Your task to perform on an android device: turn off picture-in-picture Image 0: 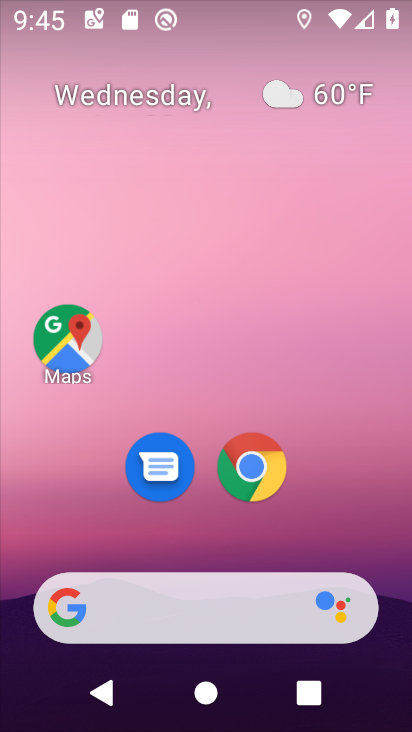
Step 0: drag from (383, 421) to (379, 93)
Your task to perform on an android device: turn off picture-in-picture Image 1: 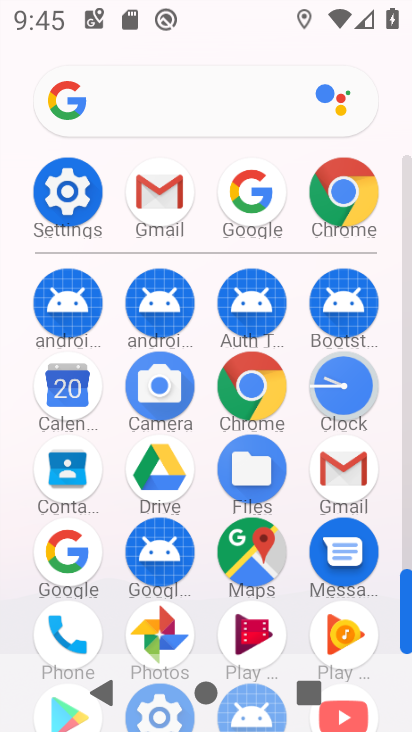
Step 1: click (350, 180)
Your task to perform on an android device: turn off picture-in-picture Image 2: 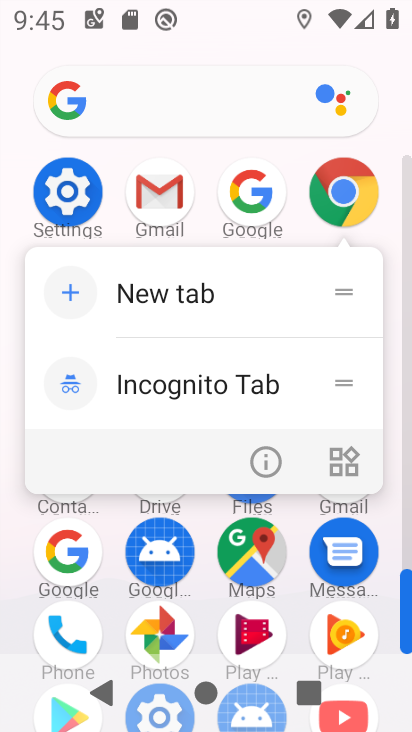
Step 2: click (257, 460)
Your task to perform on an android device: turn off picture-in-picture Image 3: 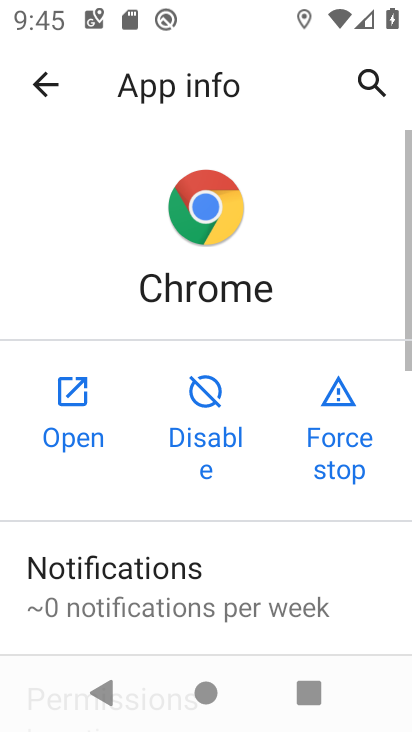
Step 3: drag from (214, 605) to (200, 158)
Your task to perform on an android device: turn off picture-in-picture Image 4: 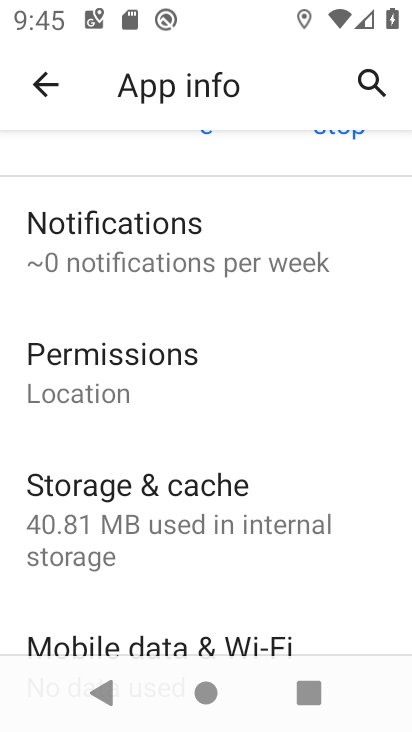
Step 4: drag from (199, 550) to (238, 181)
Your task to perform on an android device: turn off picture-in-picture Image 5: 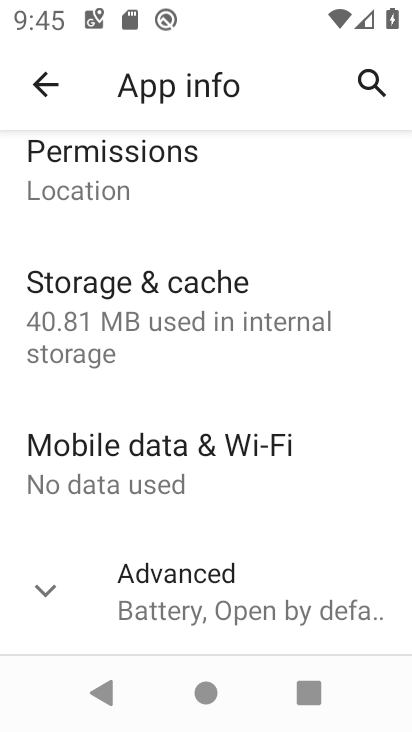
Step 5: click (229, 613)
Your task to perform on an android device: turn off picture-in-picture Image 6: 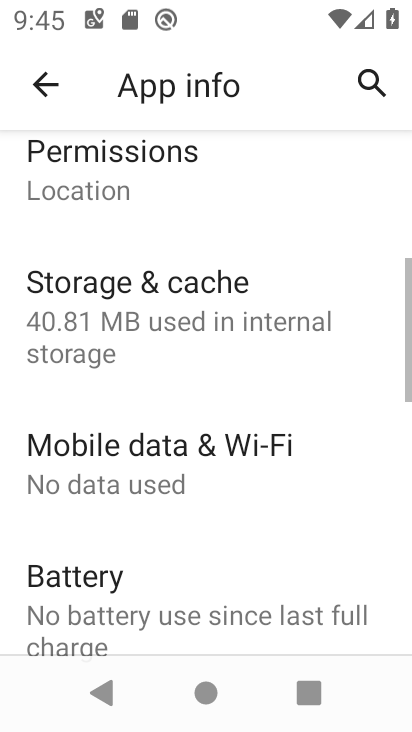
Step 6: drag from (260, 580) to (357, 208)
Your task to perform on an android device: turn off picture-in-picture Image 7: 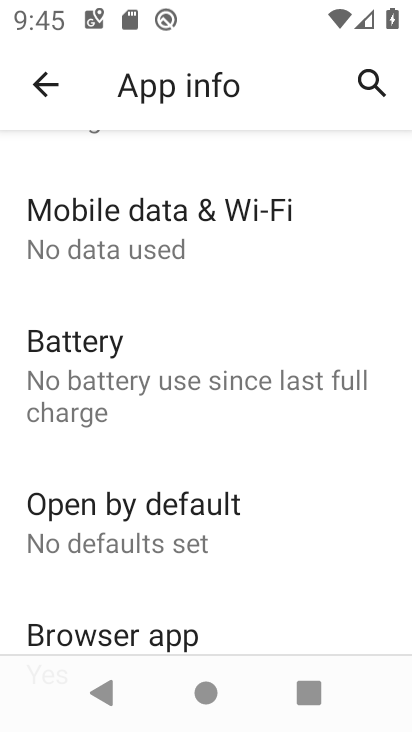
Step 7: drag from (249, 578) to (253, 155)
Your task to perform on an android device: turn off picture-in-picture Image 8: 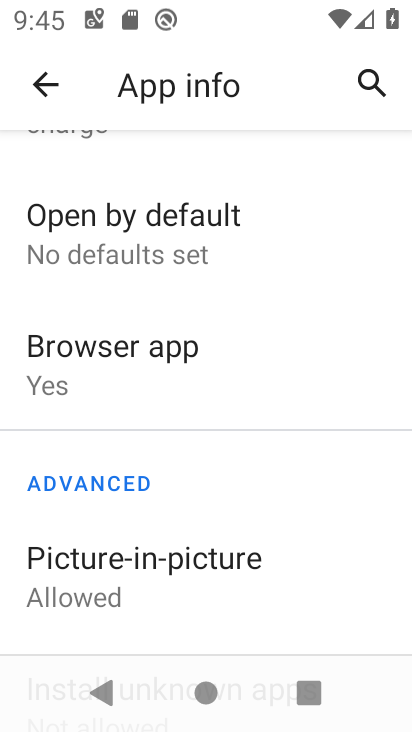
Step 8: drag from (264, 545) to (263, 328)
Your task to perform on an android device: turn off picture-in-picture Image 9: 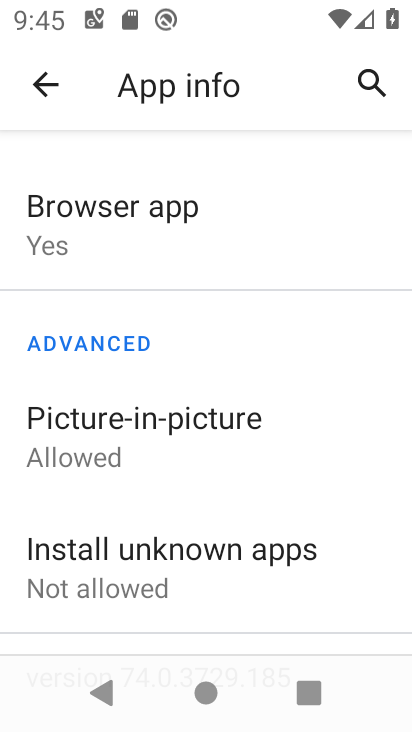
Step 9: click (131, 441)
Your task to perform on an android device: turn off picture-in-picture Image 10: 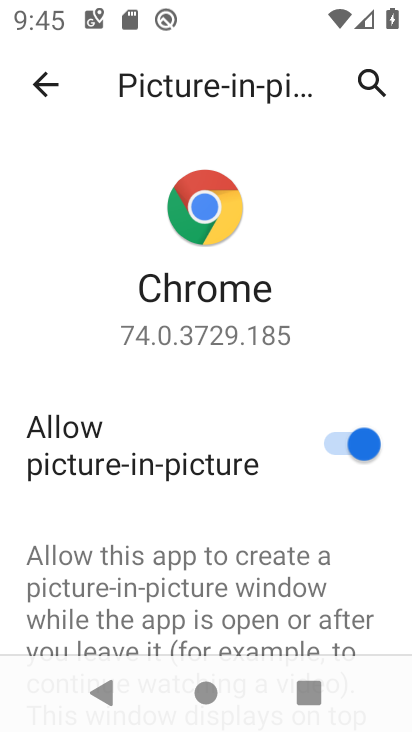
Step 10: click (337, 446)
Your task to perform on an android device: turn off picture-in-picture Image 11: 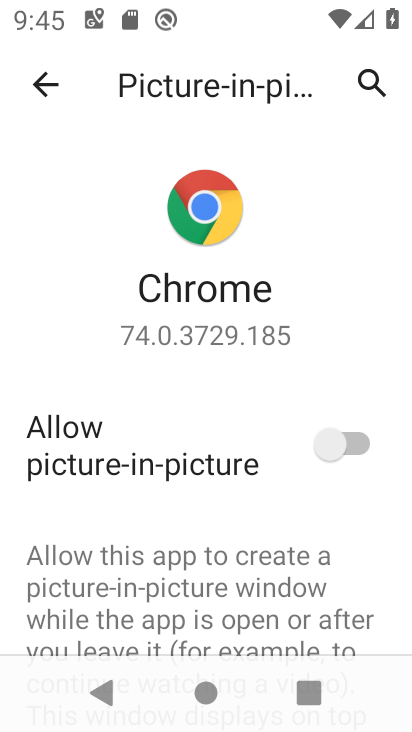
Step 11: task complete